Your task to perform on an android device: open app "Chime – Mobile Banking" (install if not already installed) and enter user name: "bullfrog@inbox.com" and password: "breaker" Image 0: 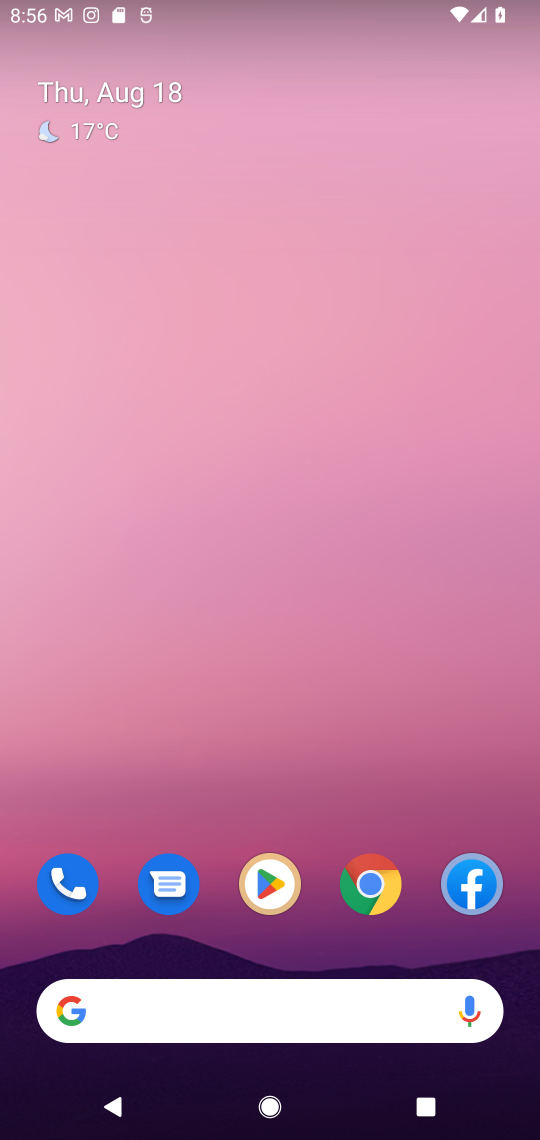
Step 0: drag from (226, 1016) to (396, 176)
Your task to perform on an android device: open app "Chime – Mobile Banking" (install if not already installed) and enter user name: "bullfrog@inbox.com" and password: "breaker" Image 1: 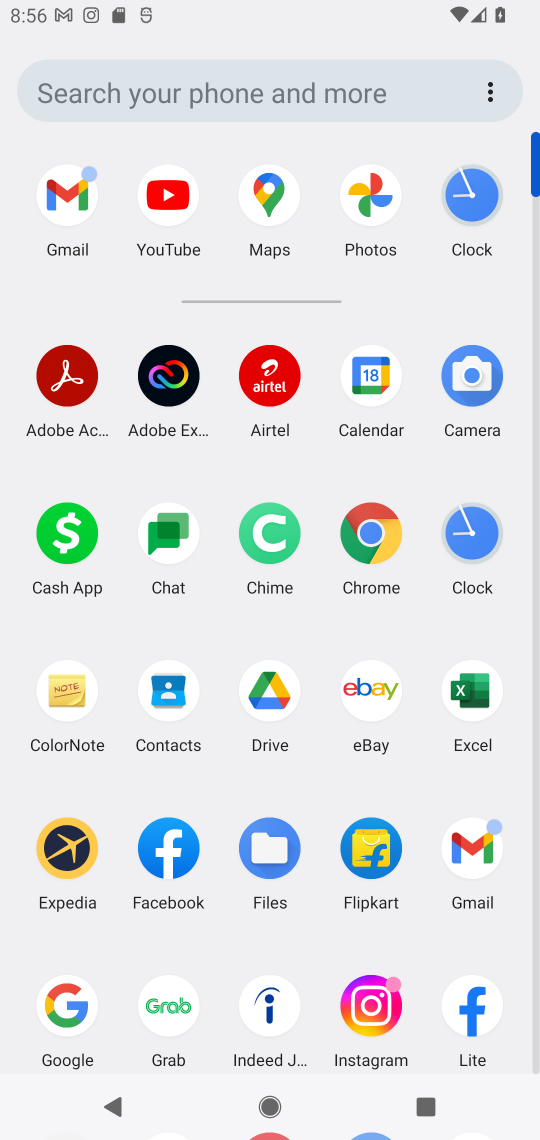
Step 1: drag from (212, 800) to (220, 249)
Your task to perform on an android device: open app "Chime – Mobile Banking" (install if not already installed) and enter user name: "bullfrog@inbox.com" and password: "breaker" Image 2: 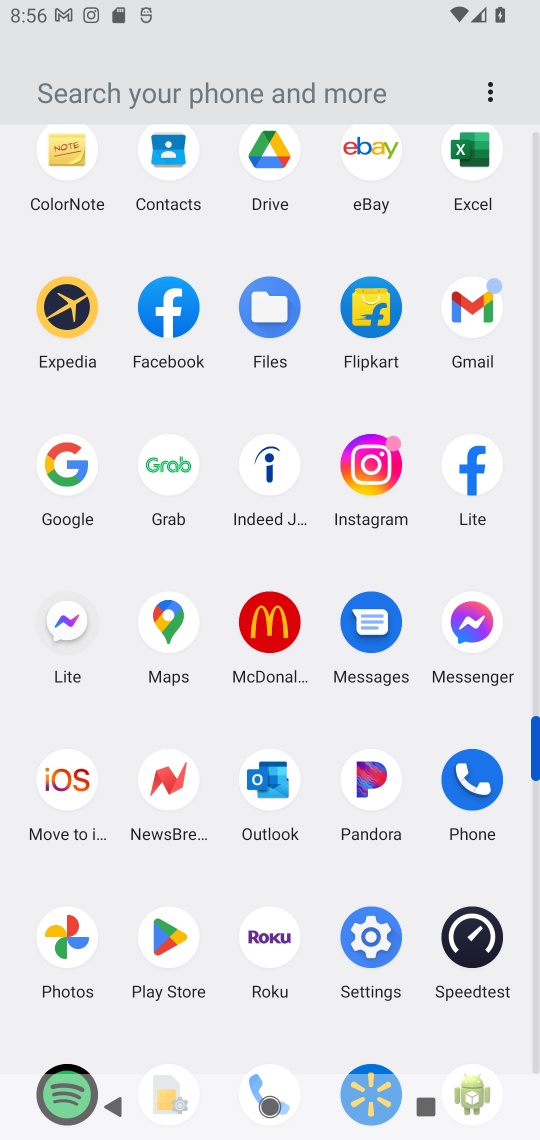
Step 2: click (178, 931)
Your task to perform on an android device: open app "Chime – Mobile Banking" (install if not already installed) and enter user name: "bullfrog@inbox.com" and password: "breaker" Image 3: 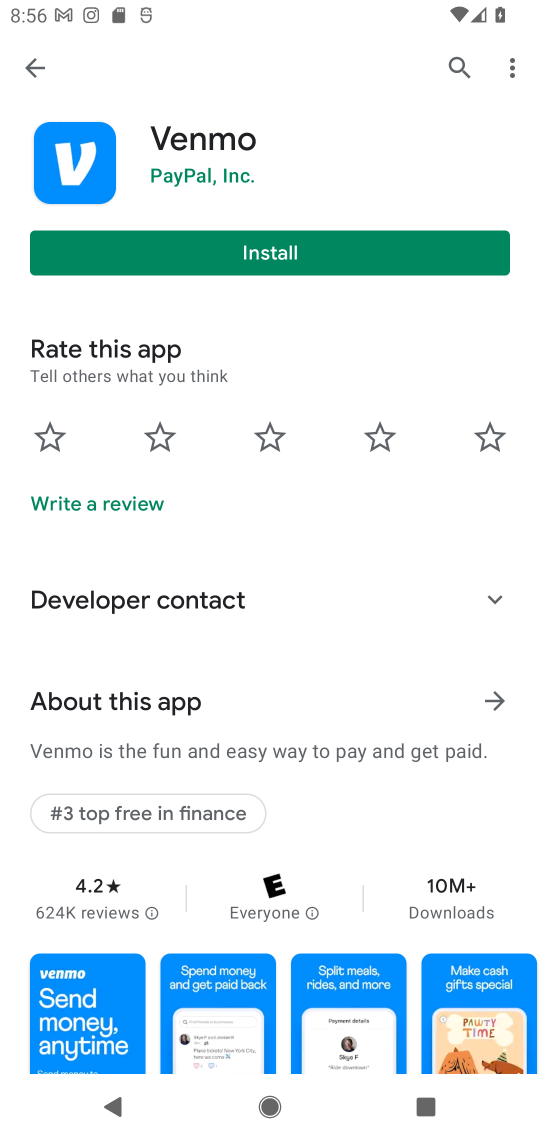
Step 3: press back button
Your task to perform on an android device: open app "Chime – Mobile Banking" (install if not already installed) and enter user name: "bullfrog@inbox.com" and password: "breaker" Image 4: 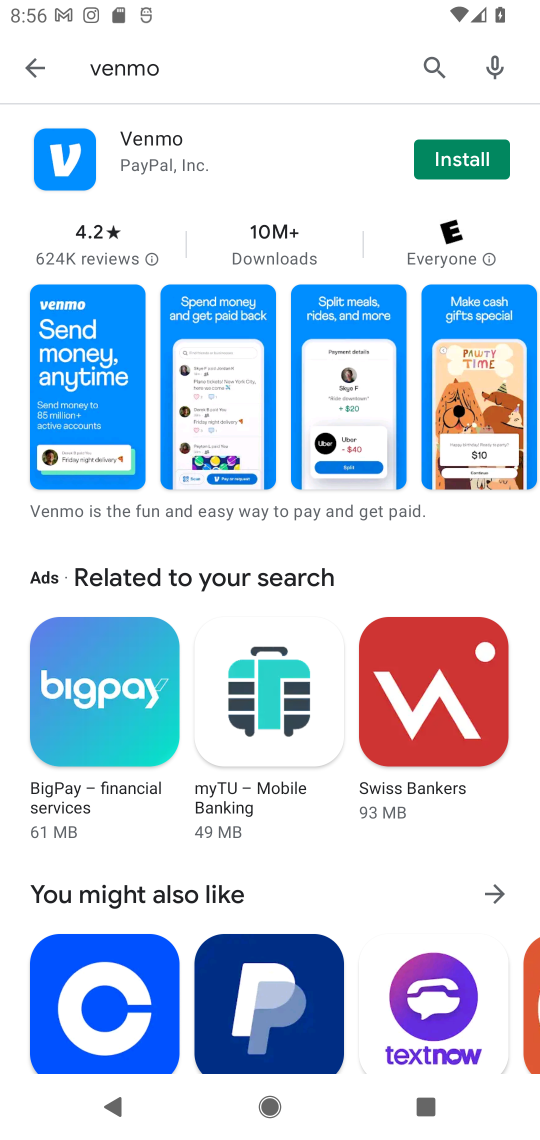
Step 4: press back button
Your task to perform on an android device: open app "Chime – Mobile Banking" (install if not already installed) and enter user name: "bullfrog@inbox.com" and password: "breaker" Image 5: 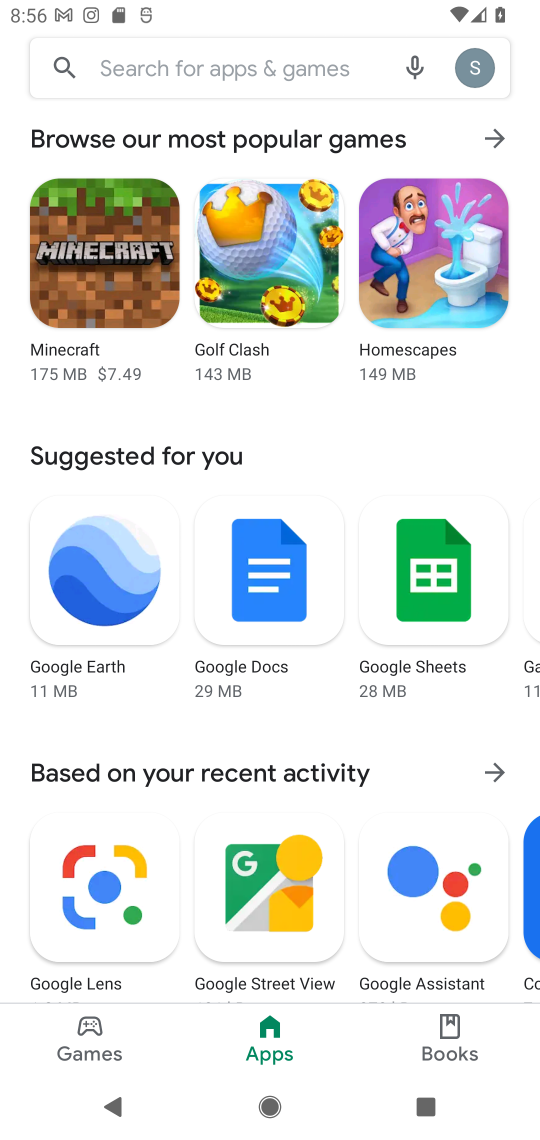
Step 5: click (290, 65)
Your task to perform on an android device: open app "Chime – Mobile Banking" (install if not already installed) and enter user name: "bullfrog@inbox.com" and password: "breaker" Image 6: 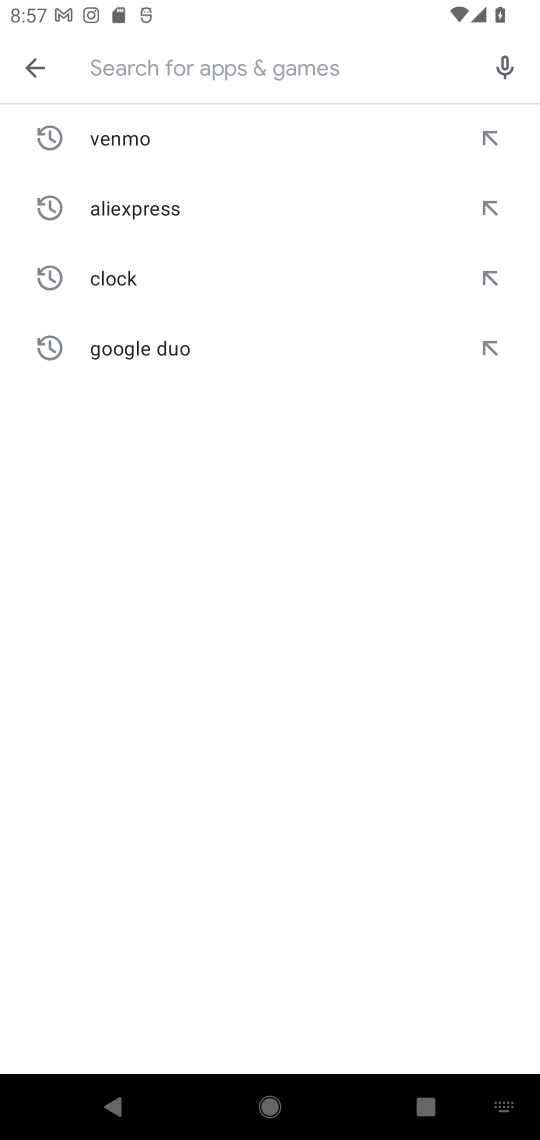
Step 6: type "Chime - Mobile Banking"
Your task to perform on an android device: open app "Chime – Mobile Banking" (install if not already installed) and enter user name: "bullfrog@inbox.com" and password: "breaker" Image 7: 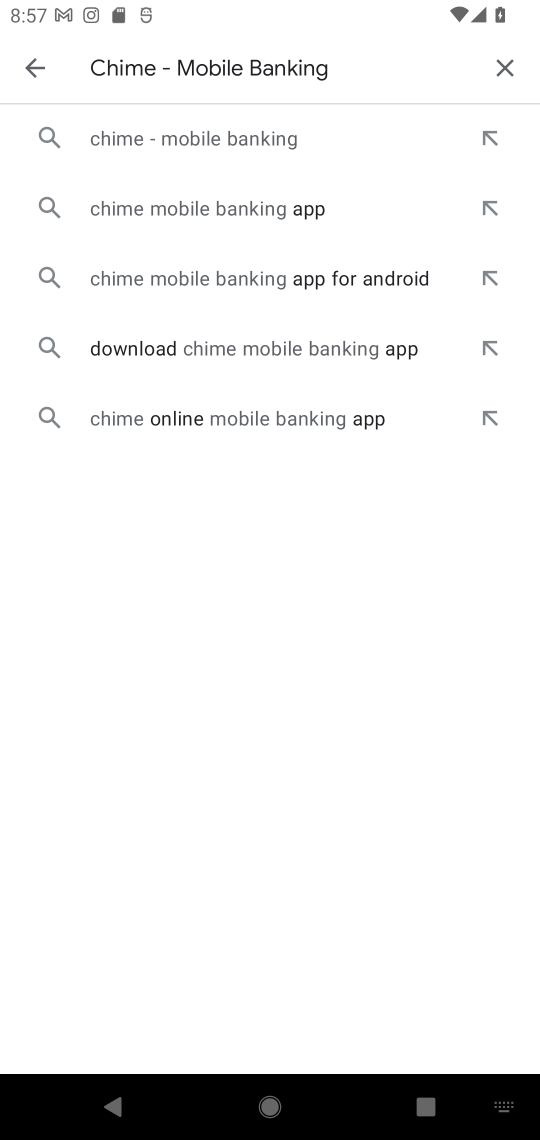
Step 7: click (259, 136)
Your task to perform on an android device: open app "Chime – Mobile Banking" (install if not already installed) and enter user name: "bullfrog@inbox.com" and password: "breaker" Image 8: 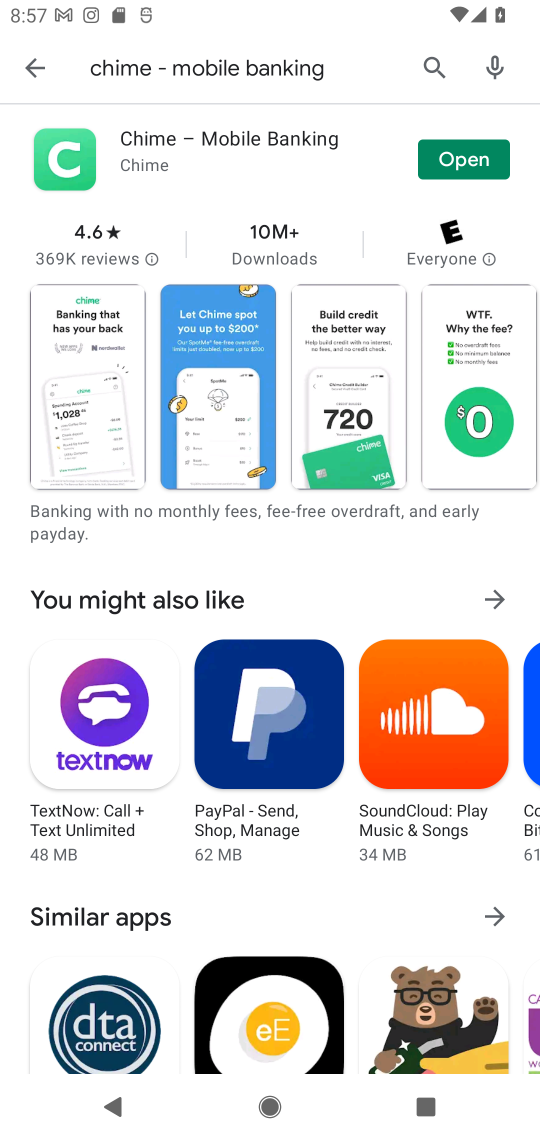
Step 8: click (467, 161)
Your task to perform on an android device: open app "Chime – Mobile Banking" (install if not already installed) and enter user name: "bullfrog@inbox.com" and password: "breaker" Image 9: 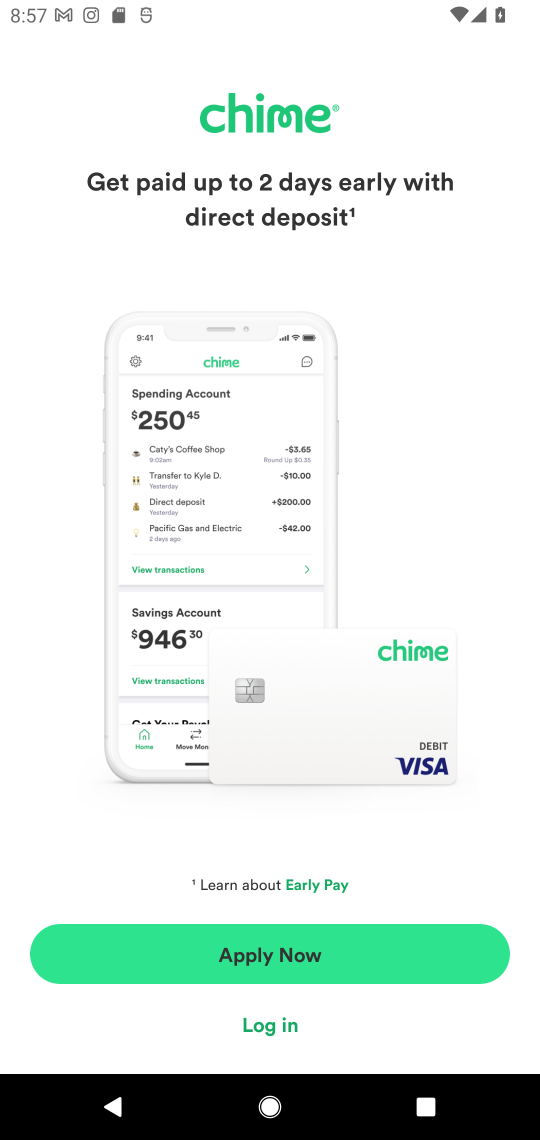
Step 9: click (277, 1030)
Your task to perform on an android device: open app "Chime – Mobile Banking" (install if not already installed) and enter user name: "bullfrog@inbox.com" and password: "breaker" Image 10: 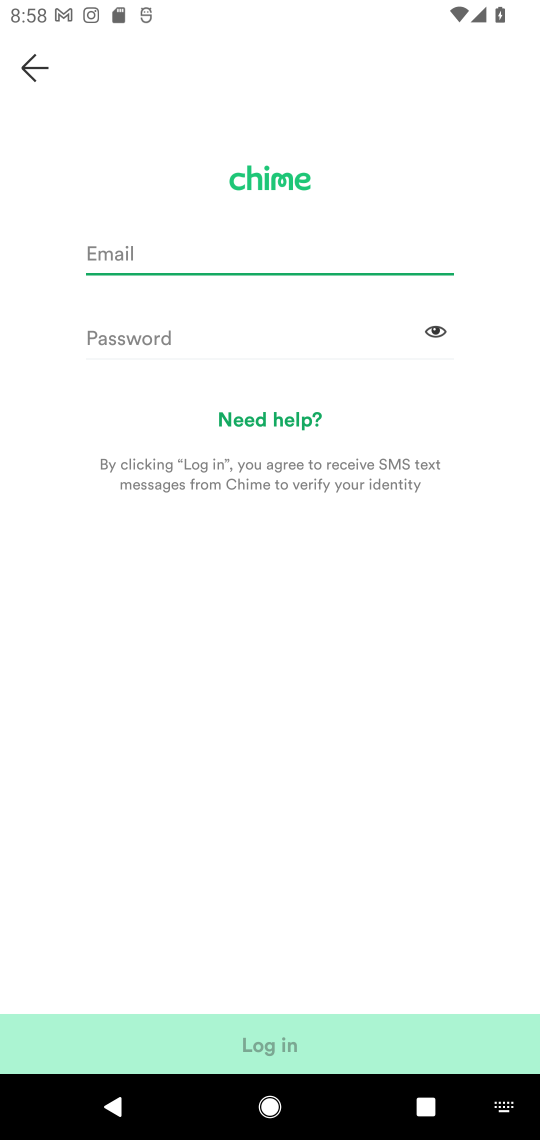
Step 10: type "bullfrog@inbox.com"
Your task to perform on an android device: open app "Chime – Mobile Banking" (install if not already installed) and enter user name: "bullfrog@inbox.com" and password: "breaker" Image 11: 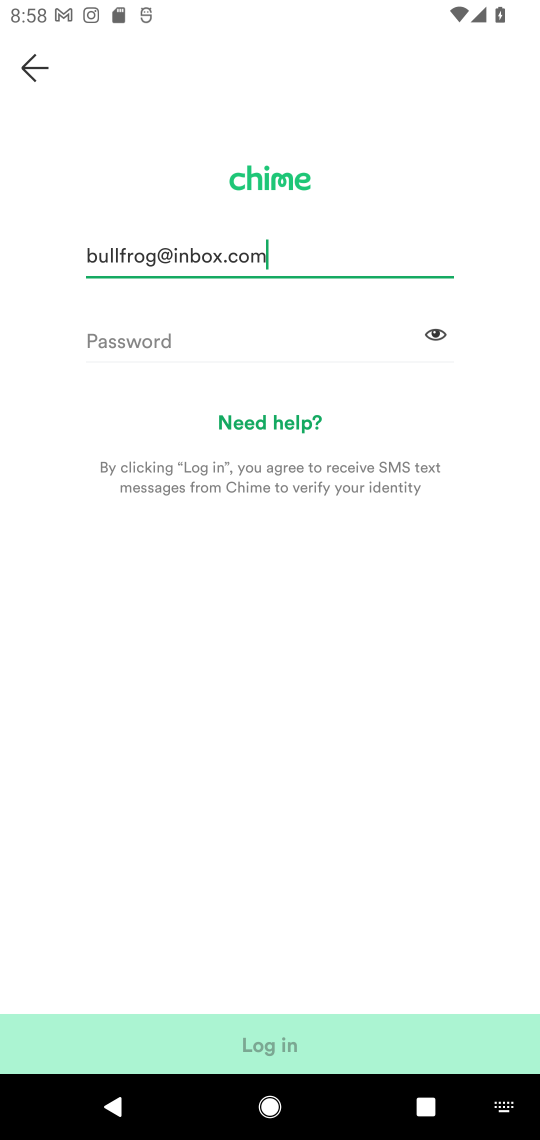
Step 11: click (317, 340)
Your task to perform on an android device: open app "Chime – Mobile Banking" (install if not already installed) and enter user name: "bullfrog@inbox.com" and password: "breaker" Image 12: 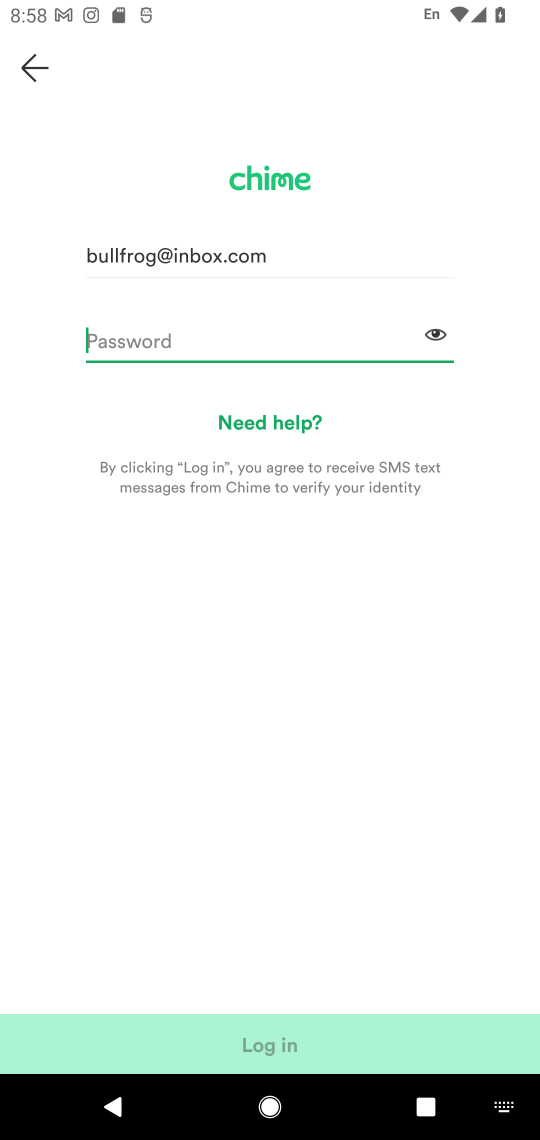
Step 12: type "breaker"
Your task to perform on an android device: open app "Chime – Mobile Banking" (install if not already installed) and enter user name: "bullfrog@inbox.com" and password: "breaker" Image 13: 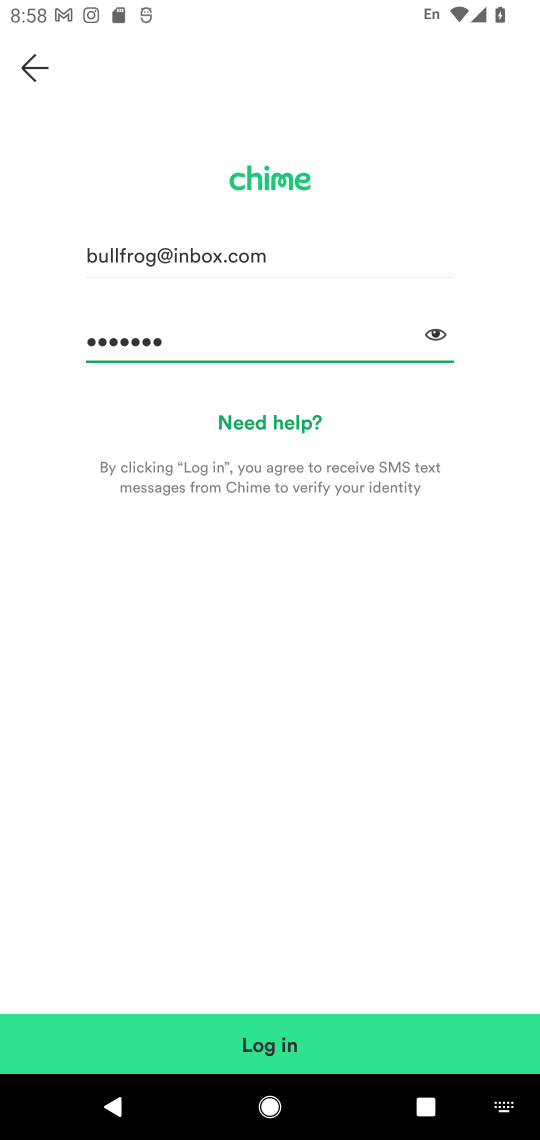
Step 13: task complete